Your task to perform on an android device: Is it going to rain this weekend? Image 0: 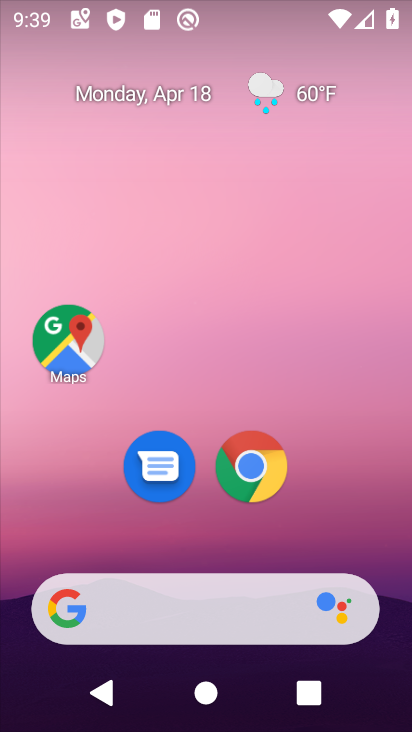
Step 0: drag from (300, 538) to (333, 9)
Your task to perform on an android device: Is it going to rain this weekend? Image 1: 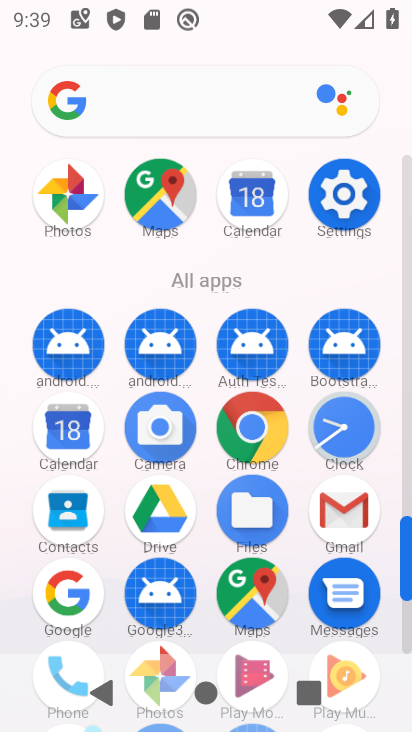
Step 1: click (242, 432)
Your task to perform on an android device: Is it going to rain this weekend? Image 2: 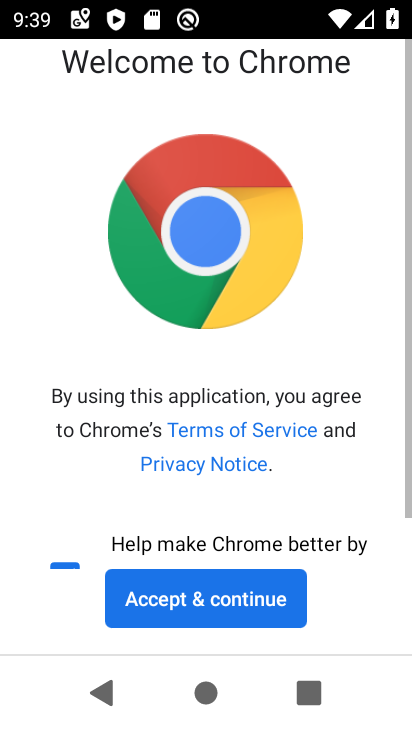
Step 2: click (216, 595)
Your task to perform on an android device: Is it going to rain this weekend? Image 3: 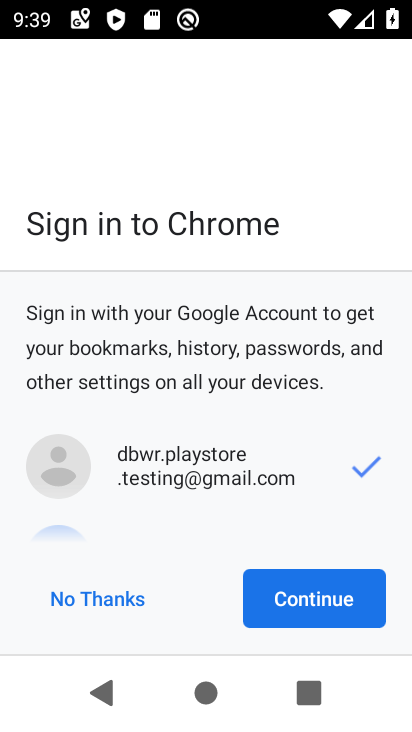
Step 3: click (131, 592)
Your task to perform on an android device: Is it going to rain this weekend? Image 4: 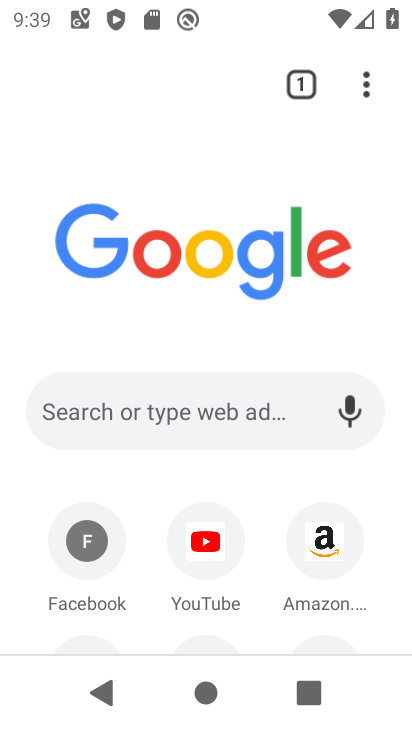
Step 4: click (214, 412)
Your task to perform on an android device: Is it going to rain this weekend? Image 5: 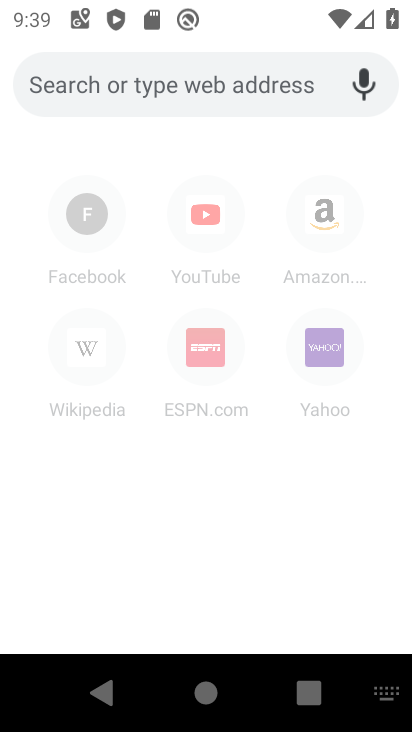
Step 5: type "rain this weekend"
Your task to perform on an android device: Is it going to rain this weekend? Image 6: 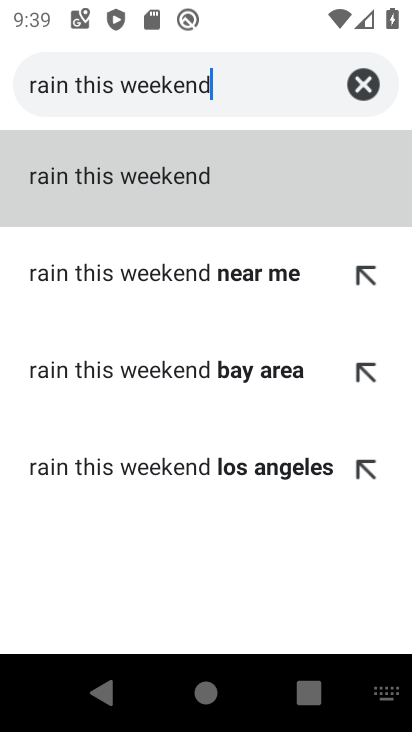
Step 6: click (197, 151)
Your task to perform on an android device: Is it going to rain this weekend? Image 7: 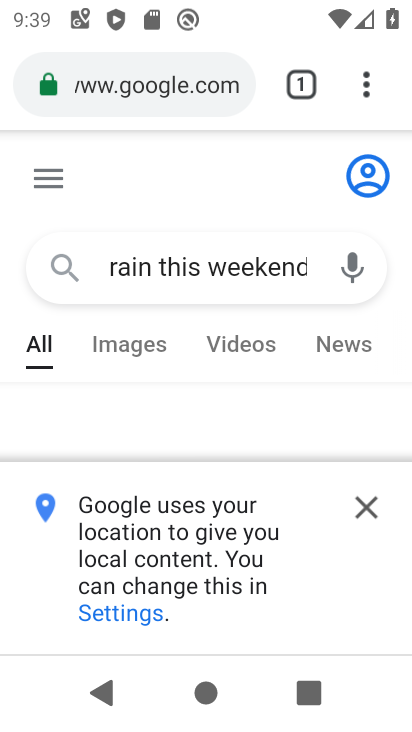
Step 7: click (368, 507)
Your task to perform on an android device: Is it going to rain this weekend? Image 8: 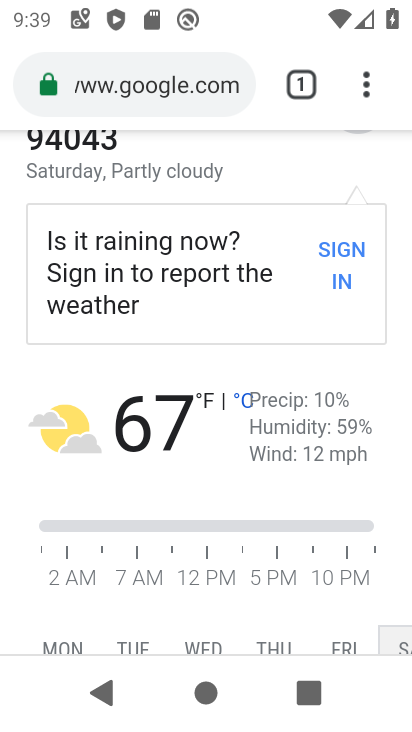
Step 8: task complete